Your task to perform on an android device: find which apps use the phone's location Image 0: 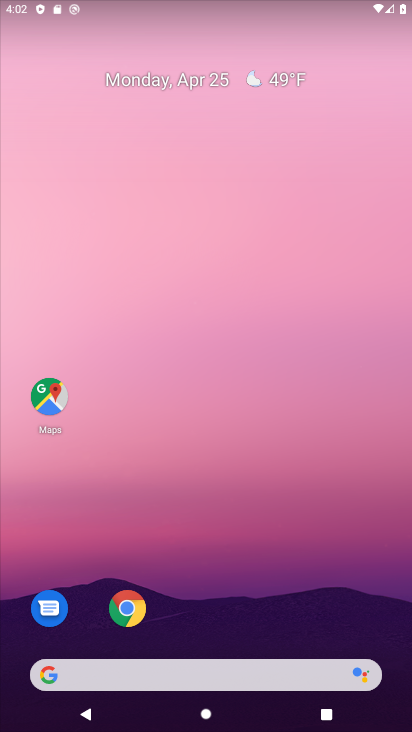
Step 0: drag from (172, 633) to (198, 134)
Your task to perform on an android device: find which apps use the phone's location Image 1: 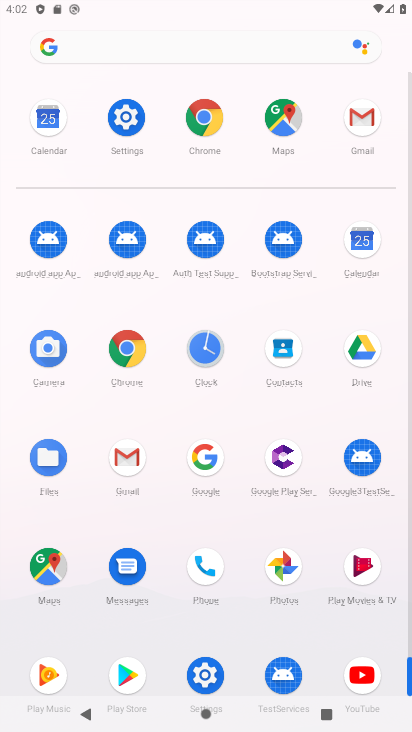
Step 1: click (127, 136)
Your task to perform on an android device: find which apps use the phone's location Image 2: 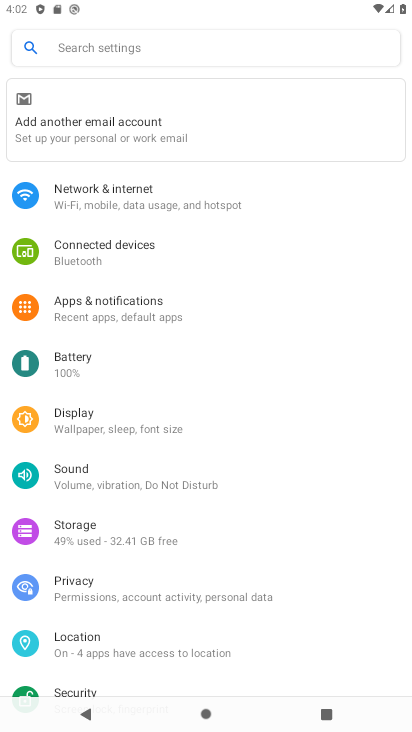
Step 2: click (119, 631)
Your task to perform on an android device: find which apps use the phone's location Image 3: 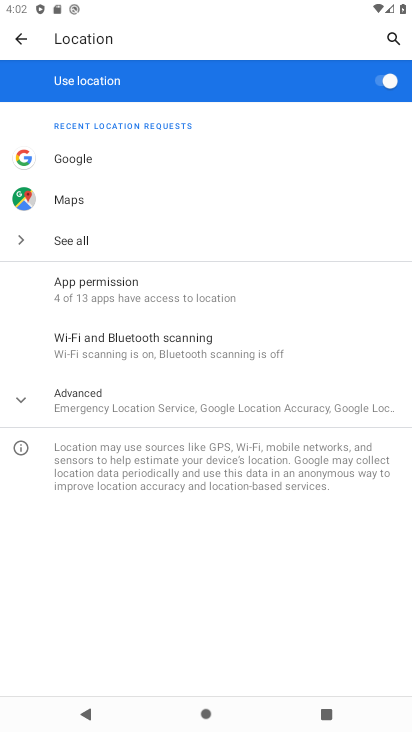
Step 3: click (158, 294)
Your task to perform on an android device: find which apps use the phone's location Image 4: 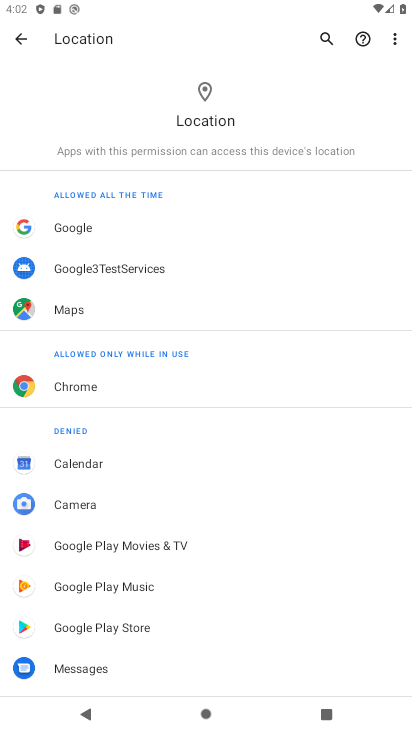
Step 4: click (158, 294)
Your task to perform on an android device: find which apps use the phone's location Image 5: 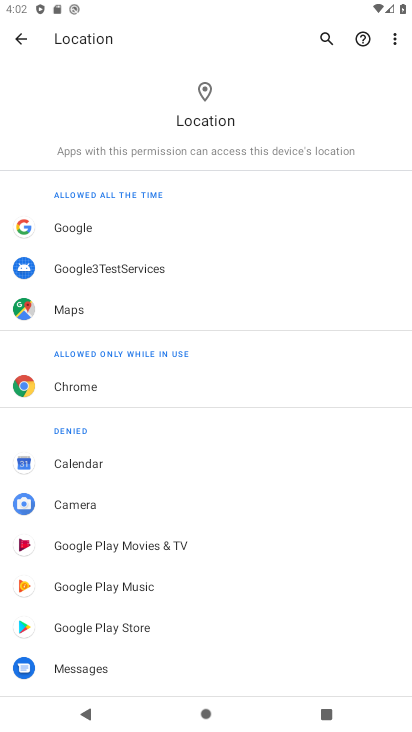
Step 5: click (158, 294)
Your task to perform on an android device: find which apps use the phone's location Image 6: 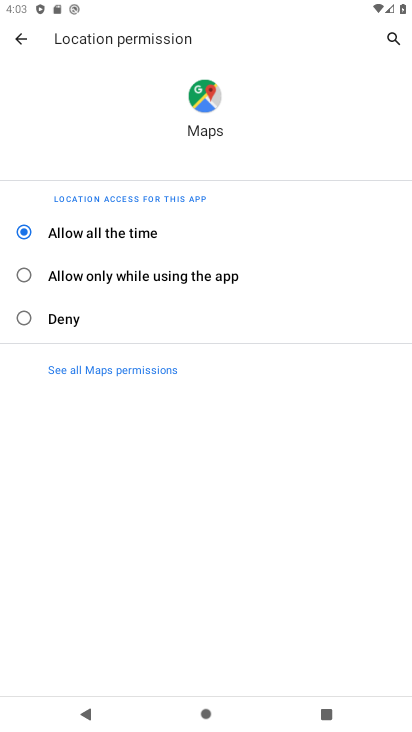
Step 6: click (20, 33)
Your task to perform on an android device: find which apps use the phone's location Image 7: 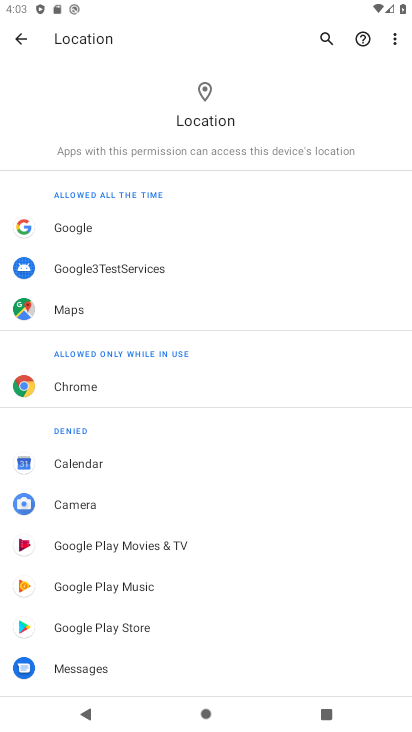
Step 7: task complete